Your task to perform on an android device: Open notification settings Image 0: 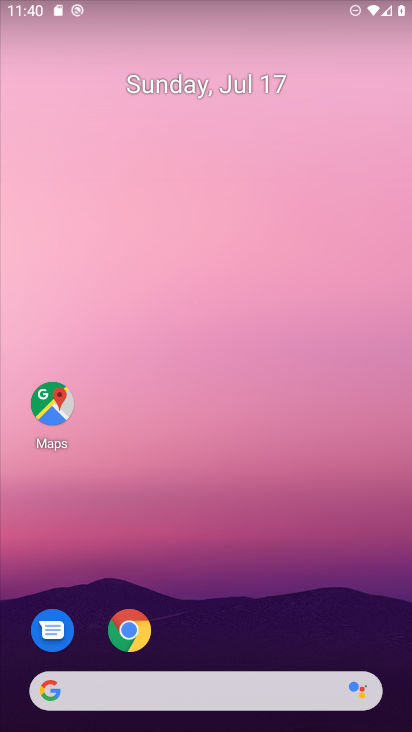
Step 0: drag from (185, 620) to (189, 201)
Your task to perform on an android device: Open notification settings Image 1: 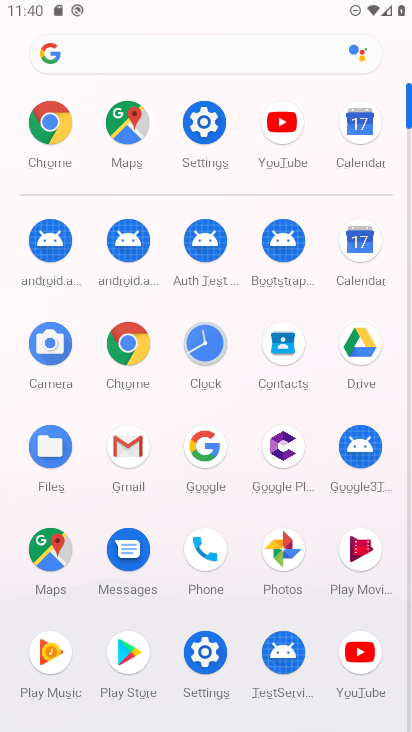
Step 1: click (193, 127)
Your task to perform on an android device: Open notification settings Image 2: 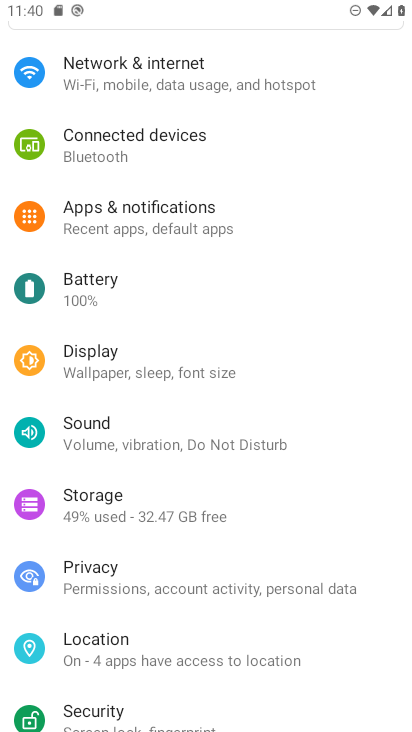
Step 2: click (112, 222)
Your task to perform on an android device: Open notification settings Image 3: 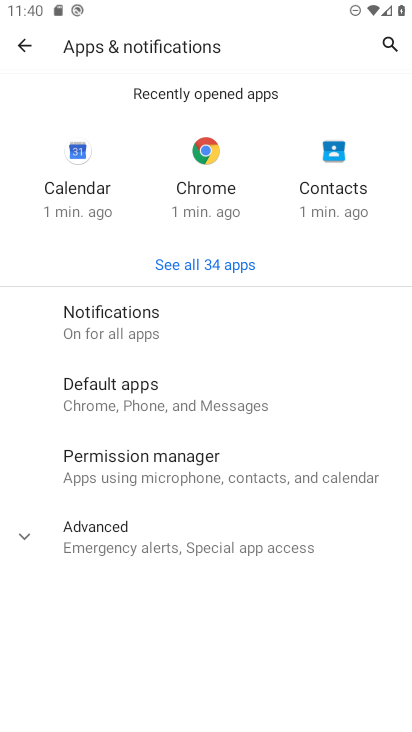
Step 3: task complete